Your task to perform on an android device: Open settings on Google Maps Image 0: 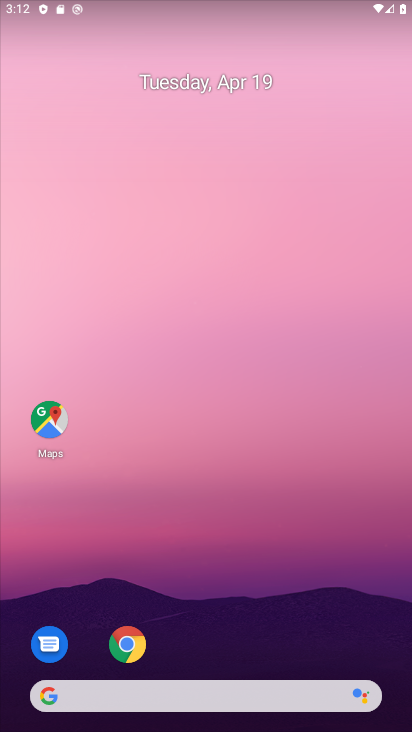
Step 0: drag from (320, 628) to (388, 233)
Your task to perform on an android device: Open settings on Google Maps Image 1: 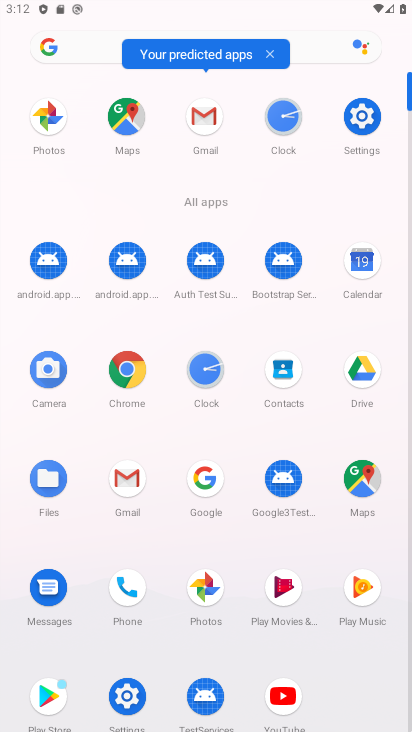
Step 1: click (359, 471)
Your task to perform on an android device: Open settings on Google Maps Image 2: 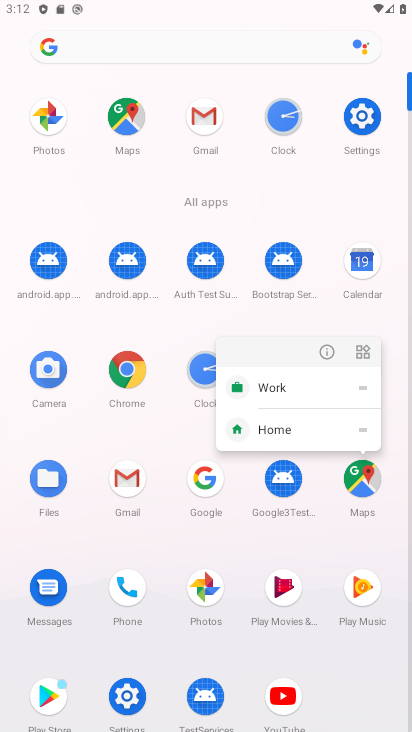
Step 2: click (365, 489)
Your task to perform on an android device: Open settings on Google Maps Image 3: 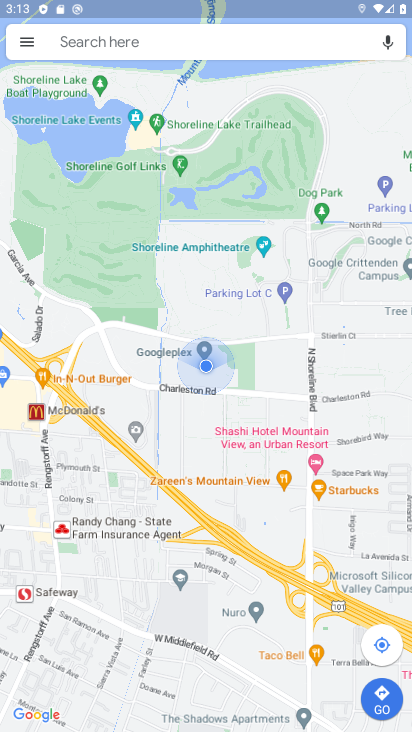
Step 3: click (24, 34)
Your task to perform on an android device: Open settings on Google Maps Image 4: 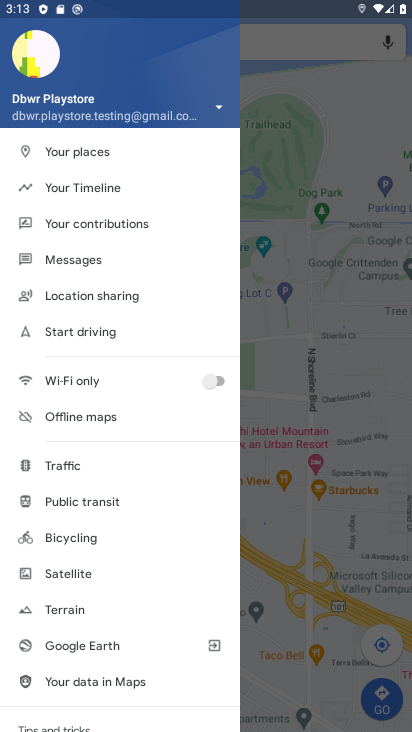
Step 4: drag from (201, 337) to (200, 293)
Your task to perform on an android device: Open settings on Google Maps Image 5: 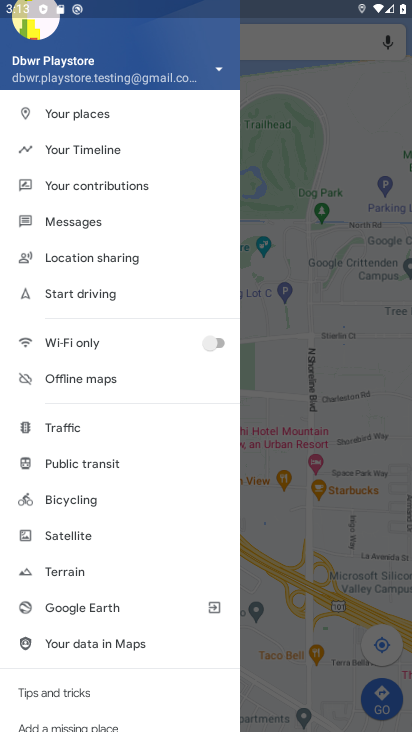
Step 5: drag from (154, 592) to (156, 261)
Your task to perform on an android device: Open settings on Google Maps Image 6: 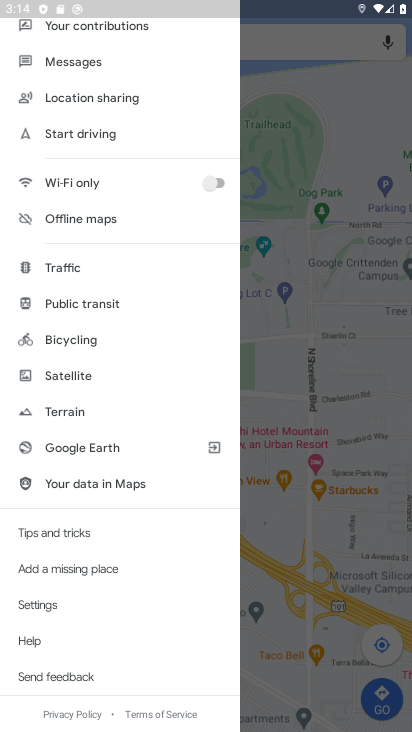
Step 6: click (42, 605)
Your task to perform on an android device: Open settings on Google Maps Image 7: 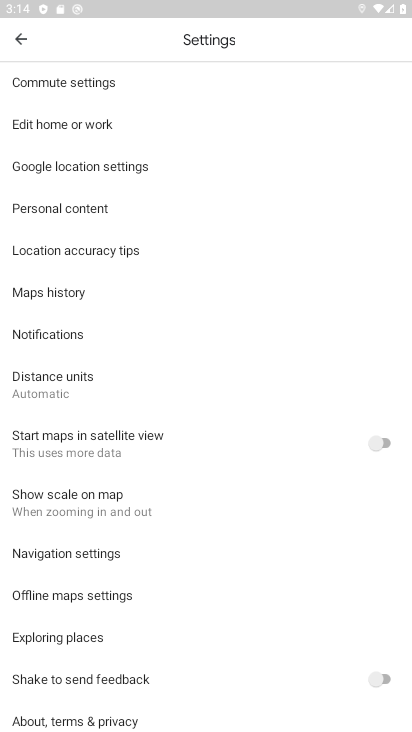
Step 7: task complete